Your task to perform on an android device: Show me the alarms in the clock app Image 0: 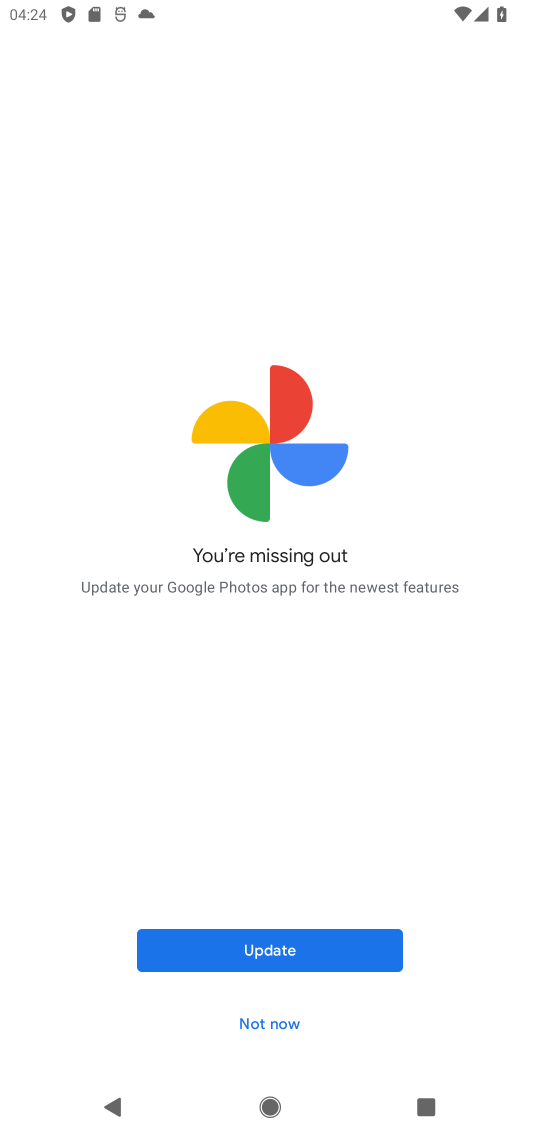
Step 0: press home button
Your task to perform on an android device: Show me the alarms in the clock app Image 1: 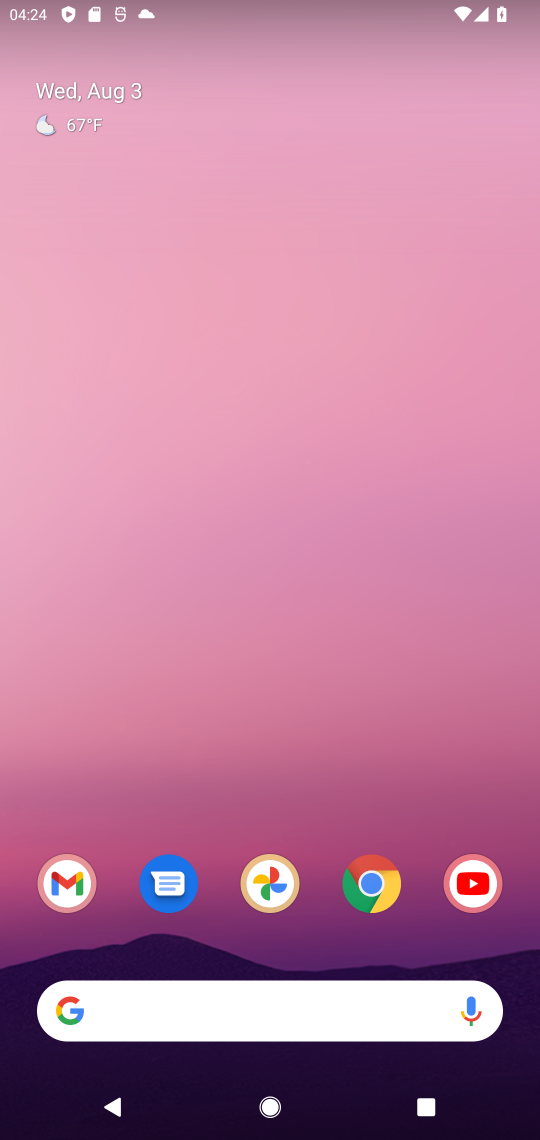
Step 1: drag from (215, 782) to (303, 5)
Your task to perform on an android device: Show me the alarms in the clock app Image 2: 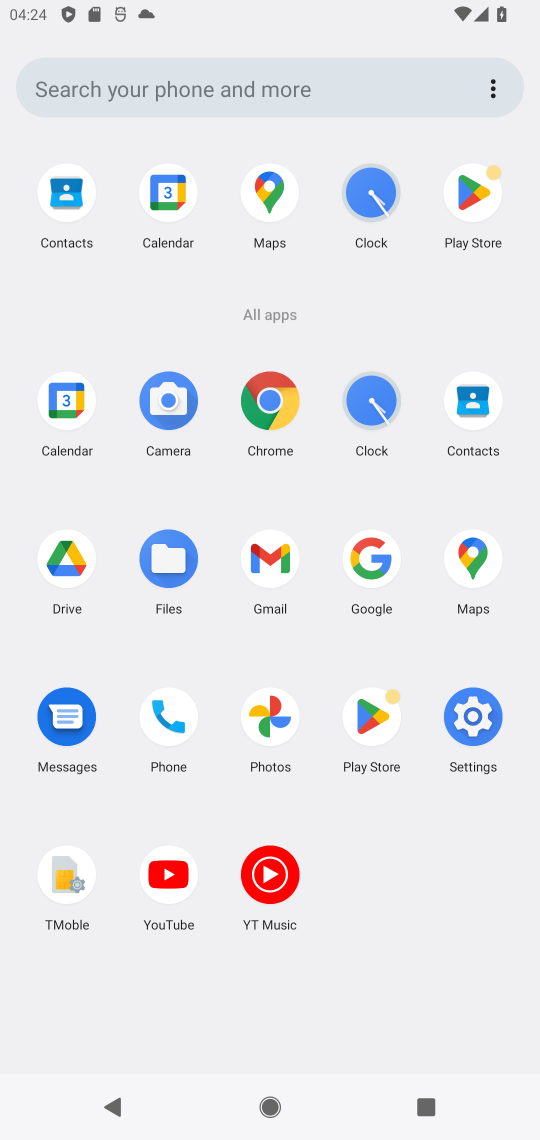
Step 2: click (374, 416)
Your task to perform on an android device: Show me the alarms in the clock app Image 3: 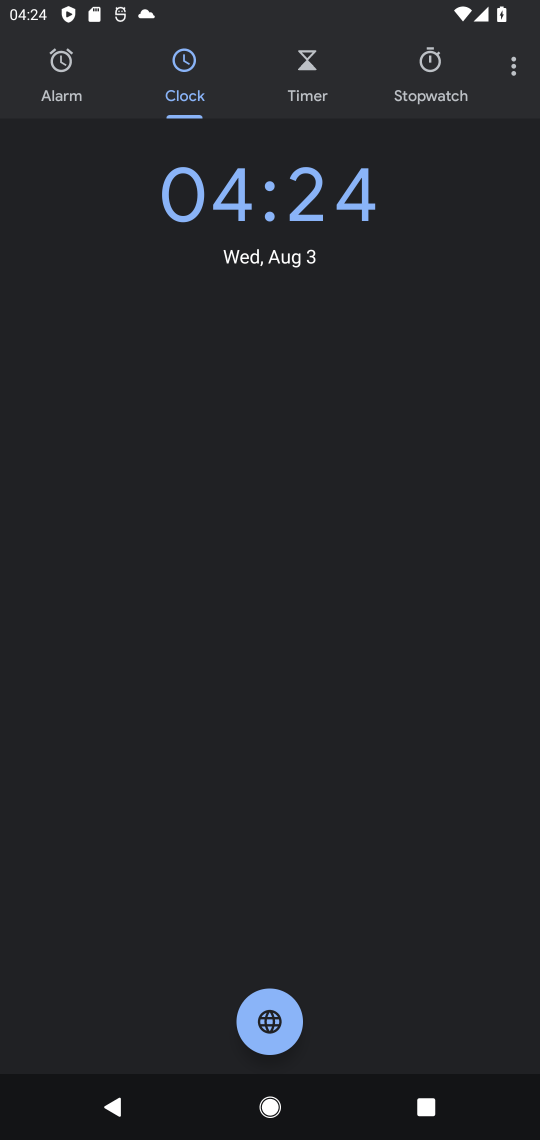
Step 3: click (88, 80)
Your task to perform on an android device: Show me the alarms in the clock app Image 4: 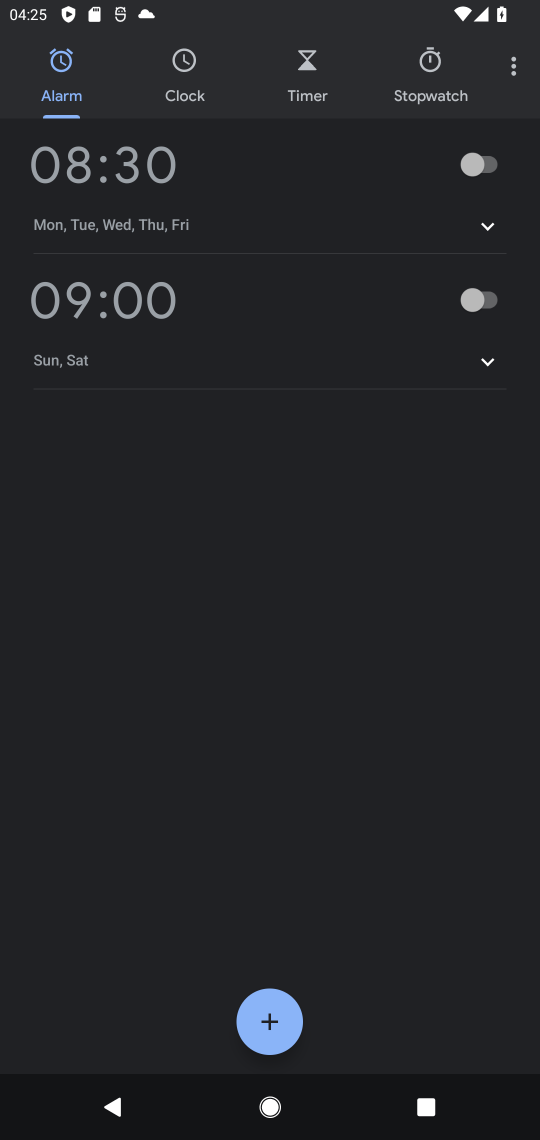
Step 4: task complete